Your task to perform on an android device: Show me recent news Image 0: 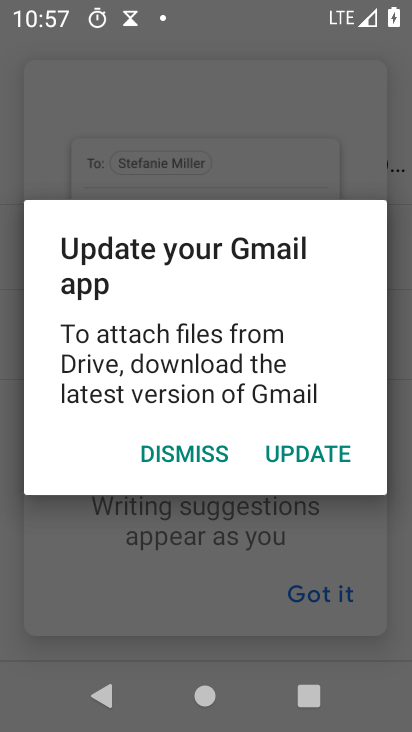
Step 0: press home button
Your task to perform on an android device: Show me recent news Image 1: 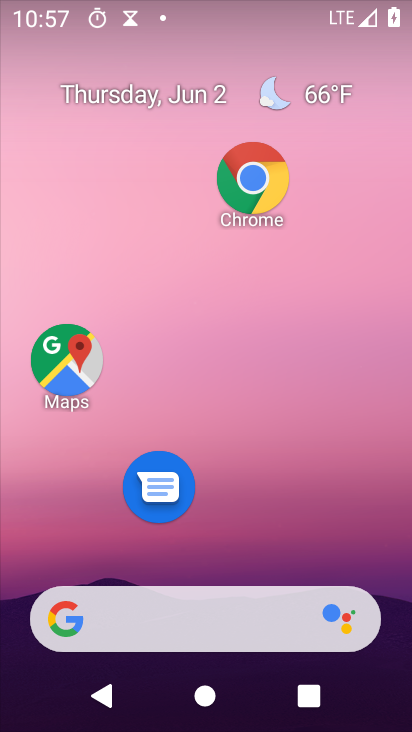
Step 1: task complete